Your task to perform on an android device: turn on sleep mode Image 0: 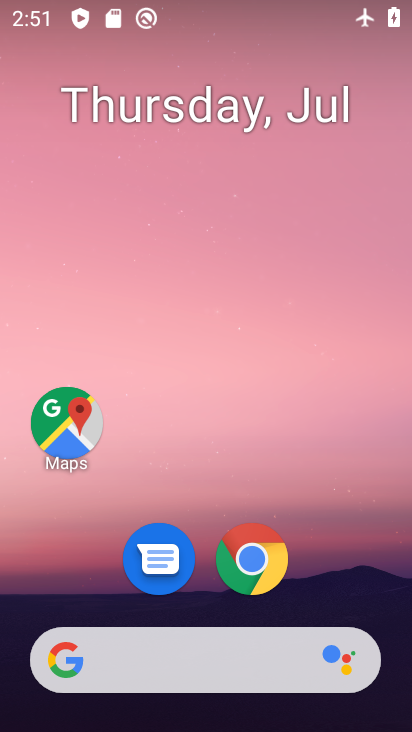
Step 0: drag from (328, 598) to (279, 198)
Your task to perform on an android device: turn on sleep mode Image 1: 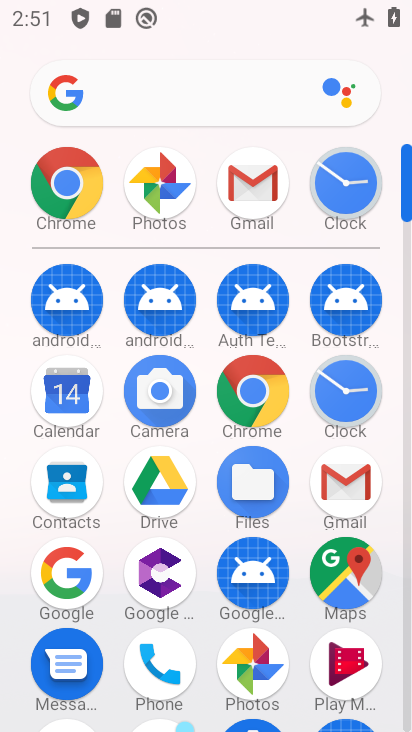
Step 1: drag from (228, 405) to (227, 160)
Your task to perform on an android device: turn on sleep mode Image 2: 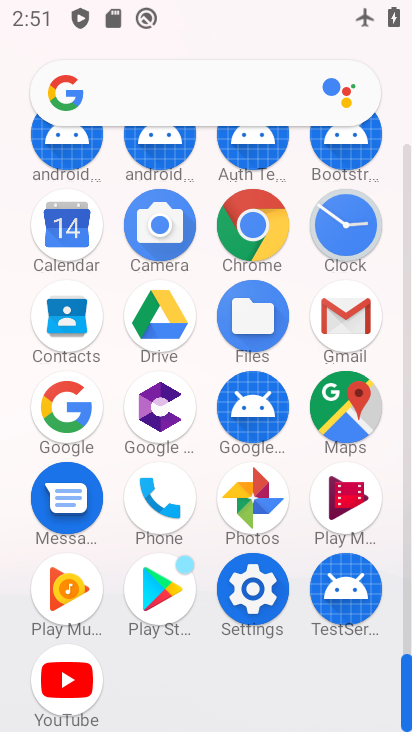
Step 2: click (270, 597)
Your task to perform on an android device: turn on sleep mode Image 3: 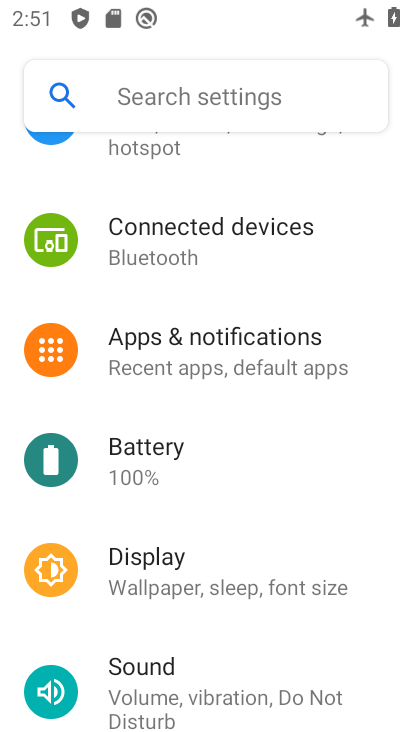
Step 3: click (234, 573)
Your task to perform on an android device: turn on sleep mode Image 4: 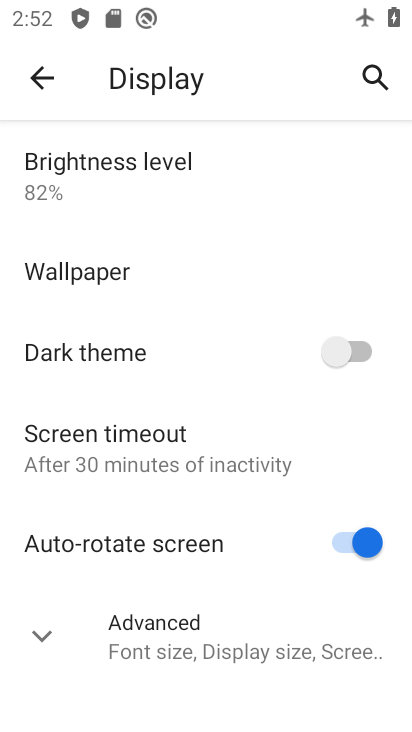
Step 4: click (184, 660)
Your task to perform on an android device: turn on sleep mode Image 5: 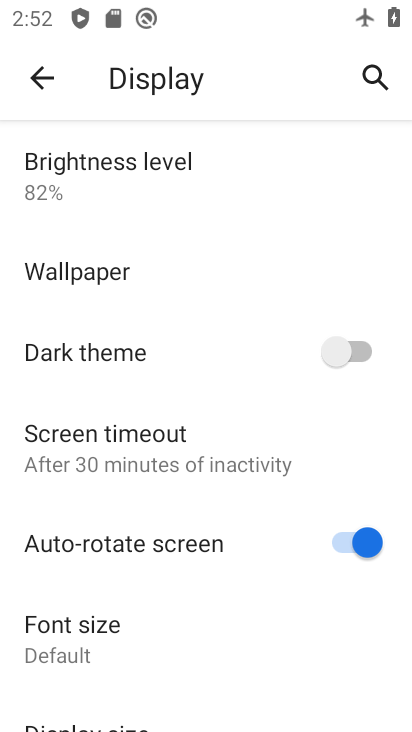
Step 5: task complete